Your task to perform on an android device: Search for Italian restaurants on Maps Image 0: 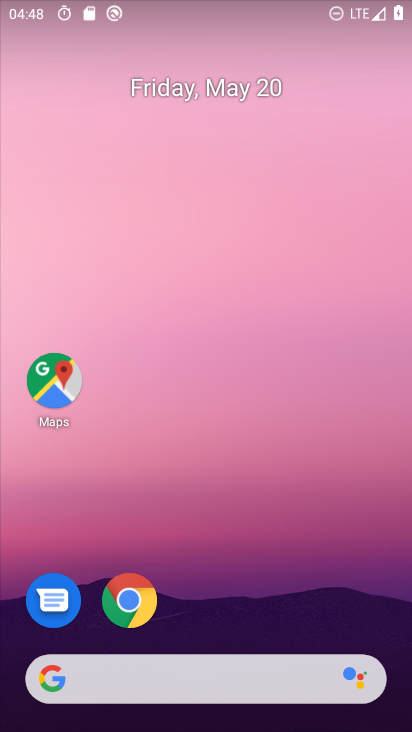
Step 0: click (48, 367)
Your task to perform on an android device: Search for Italian restaurants on Maps Image 1: 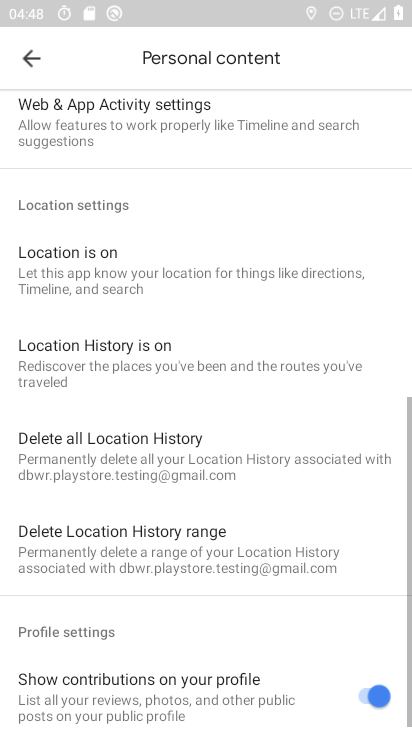
Step 1: click (32, 58)
Your task to perform on an android device: Search for Italian restaurants on Maps Image 2: 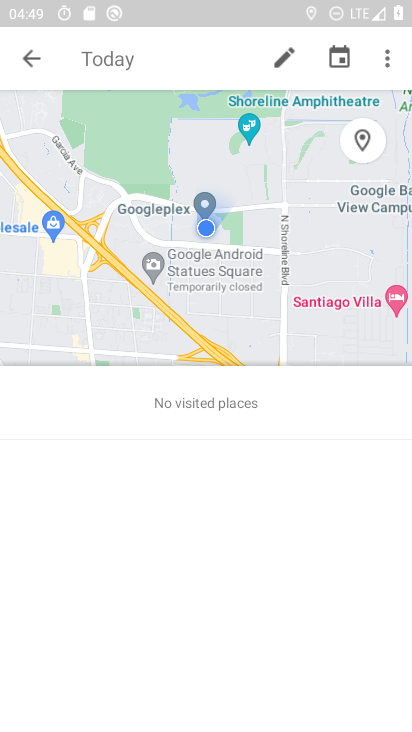
Step 2: click (26, 50)
Your task to perform on an android device: Search for Italian restaurants on Maps Image 3: 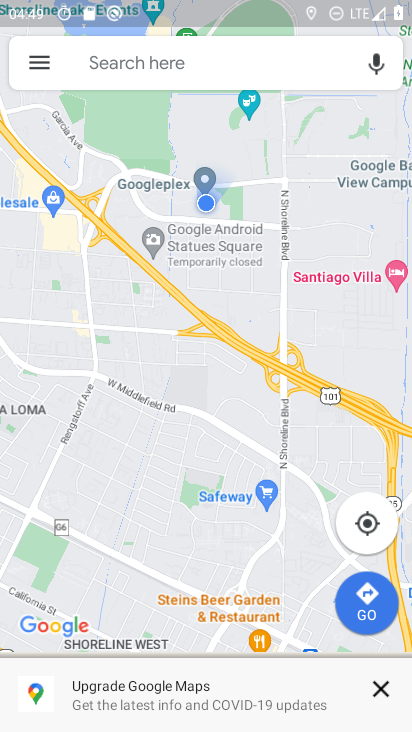
Step 3: click (150, 67)
Your task to perform on an android device: Search for Italian restaurants on Maps Image 4: 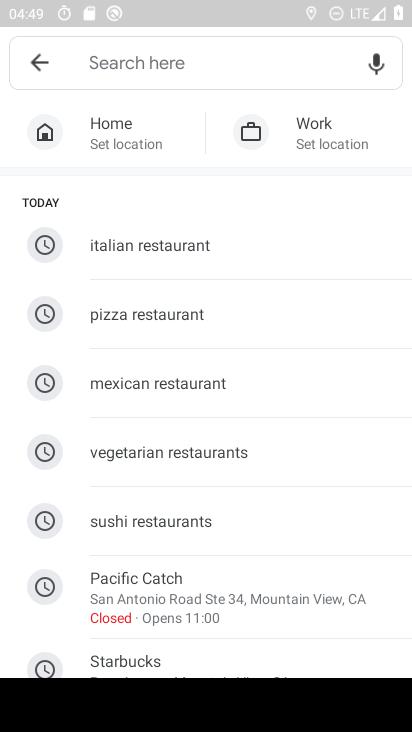
Step 4: click (142, 247)
Your task to perform on an android device: Search for Italian restaurants on Maps Image 5: 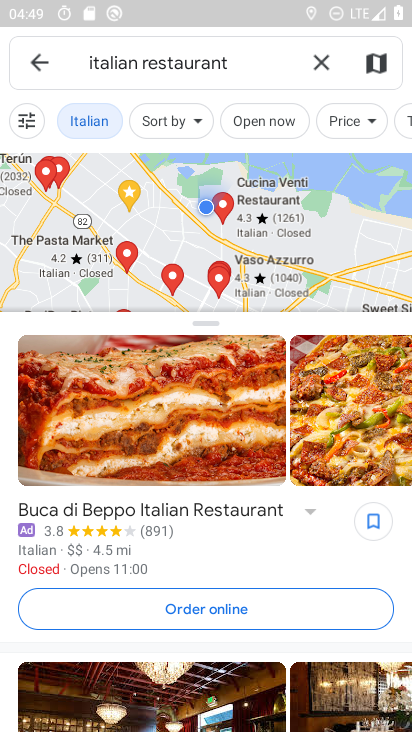
Step 5: task complete